Your task to perform on an android device: Go to calendar. Show me events next week Image 0: 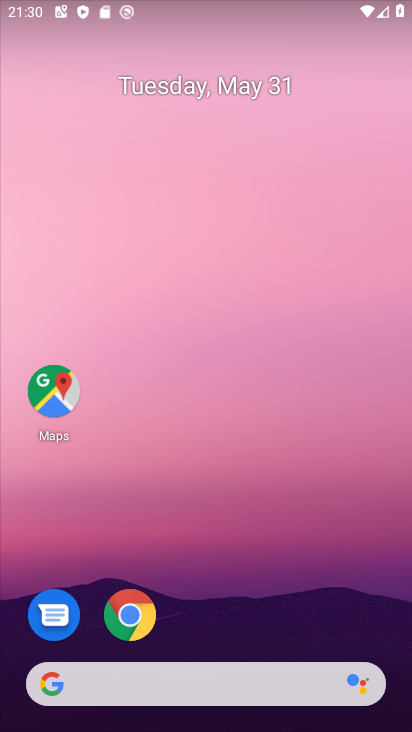
Step 0: drag from (279, 640) to (241, 253)
Your task to perform on an android device: Go to calendar. Show me events next week Image 1: 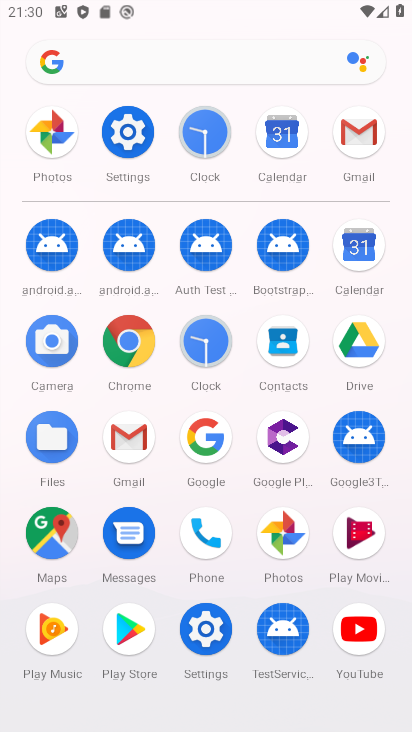
Step 1: click (274, 133)
Your task to perform on an android device: Go to calendar. Show me events next week Image 2: 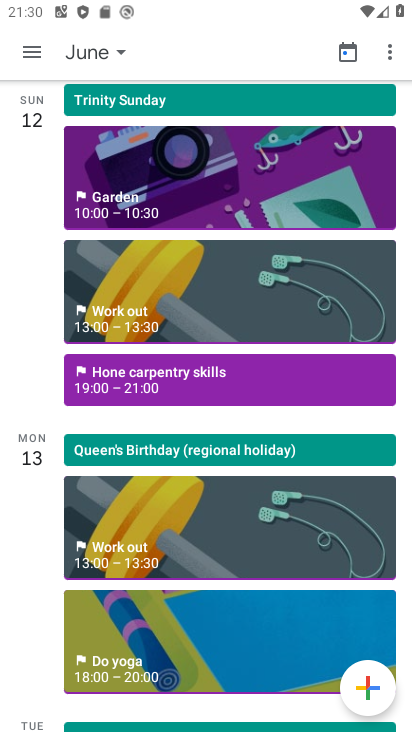
Step 2: task complete